Your task to perform on an android device: When is my next appointment? Image 0: 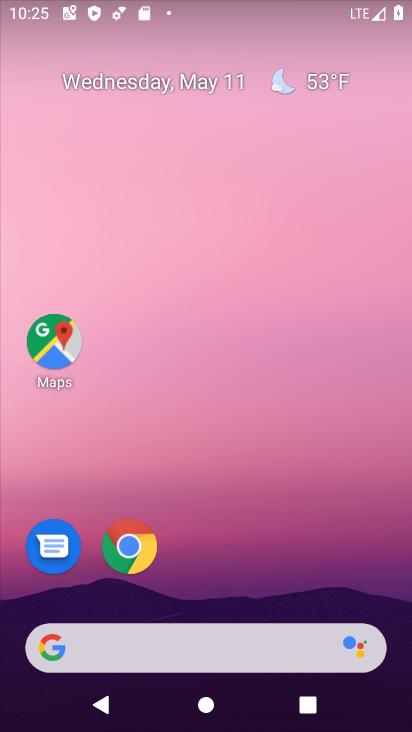
Step 0: drag from (406, 621) to (283, 25)
Your task to perform on an android device: When is my next appointment? Image 1: 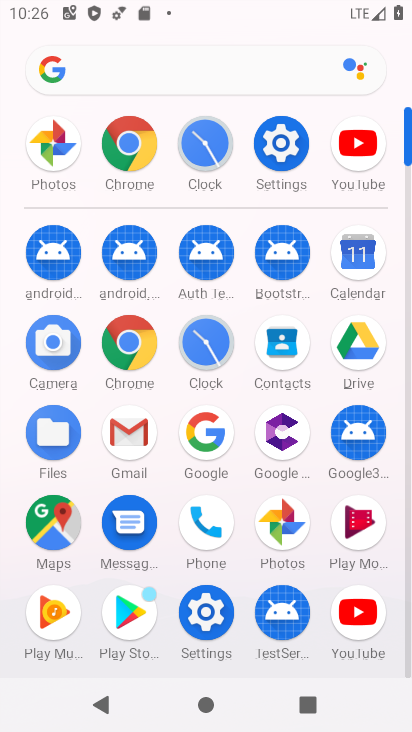
Step 1: click (335, 255)
Your task to perform on an android device: When is my next appointment? Image 2: 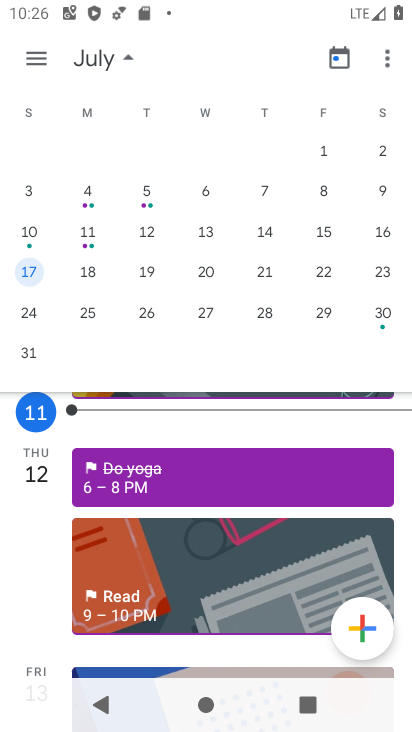
Step 2: task complete